Your task to perform on an android device: Go to accessibility settings Image 0: 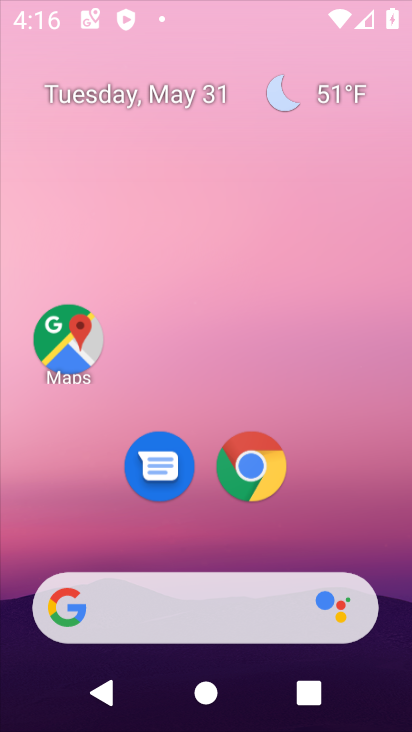
Step 0: press home button
Your task to perform on an android device: Go to accessibility settings Image 1: 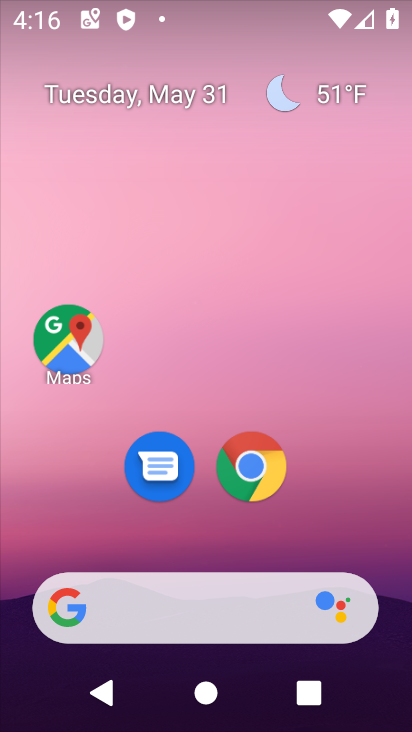
Step 1: drag from (202, 549) to (236, 3)
Your task to perform on an android device: Go to accessibility settings Image 2: 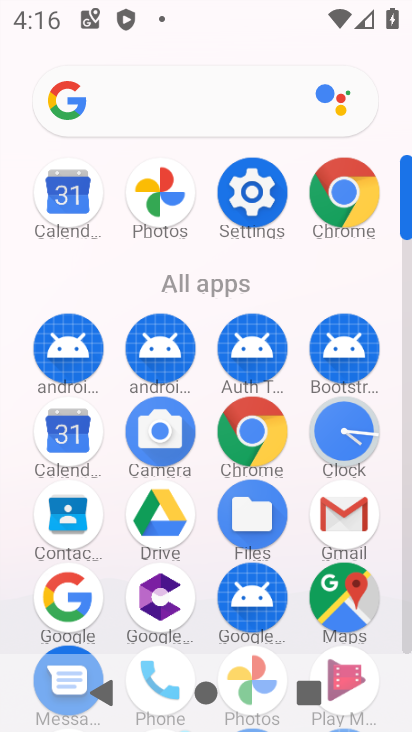
Step 2: click (253, 188)
Your task to perform on an android device: Go to accessibility settings Image 3: 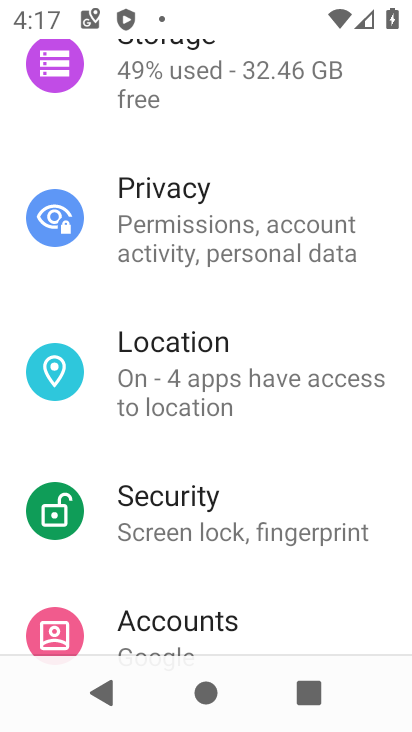
Step 3: drag from (239, 557) to (260, 161)
Your task to perform on an android device: Go to accessibility settings Image 4: 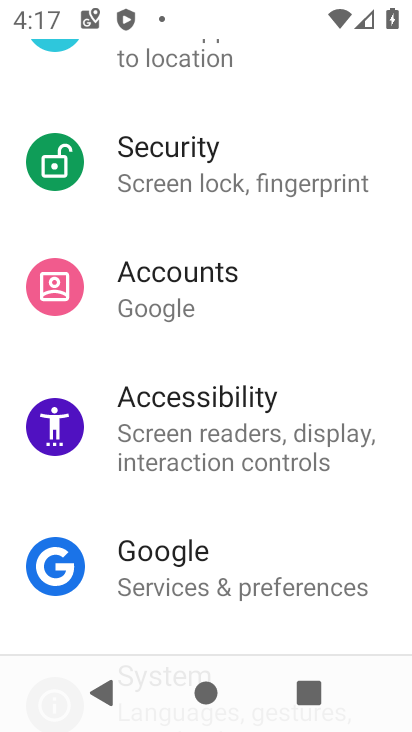
Step 4: click (228, 436)
Your task to perform on an android device: Go to accessibility settings Image 5: 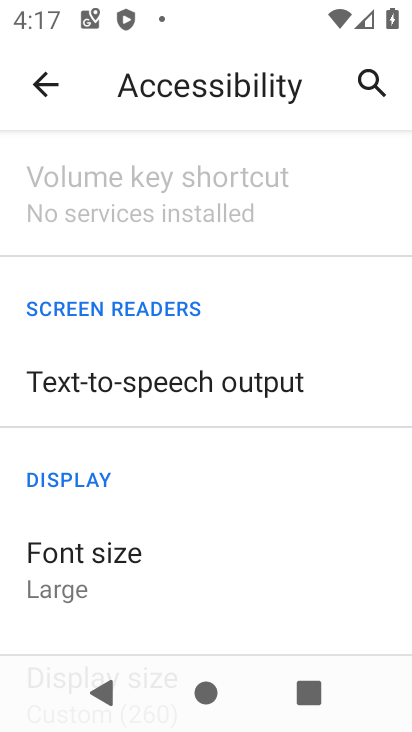
Step 5: task complete